Your task to perform on an android device: turn smart compose on in the gmail app Image 0: 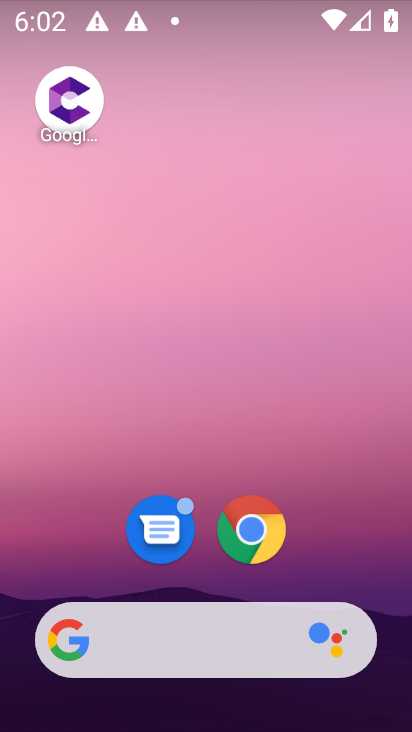
Step 0: click (139, 56)
Your task to perform on an android device: turn smart compose on in the gmail app Image 1: 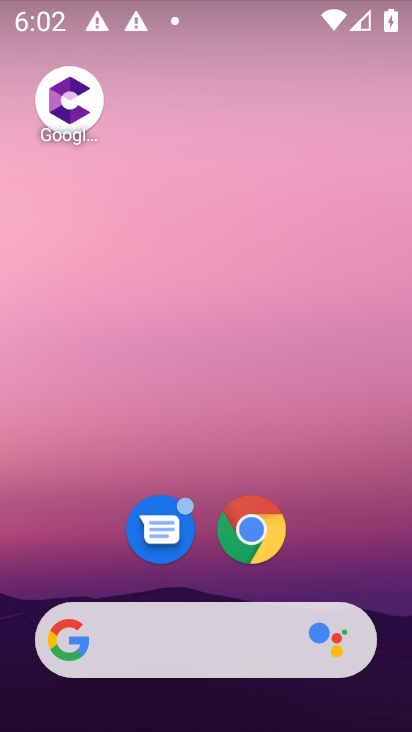
Step 1: click (213, 279)
Your task to perform on an android device: turn smart compose on in the gmail app Image 2: 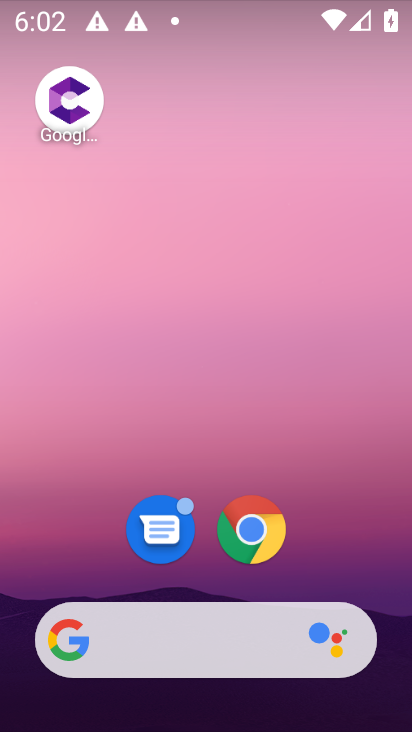
Step 2: click (227, 96)
Your task to perform on an android device: turn smart compose on in the gmail app Image 3: 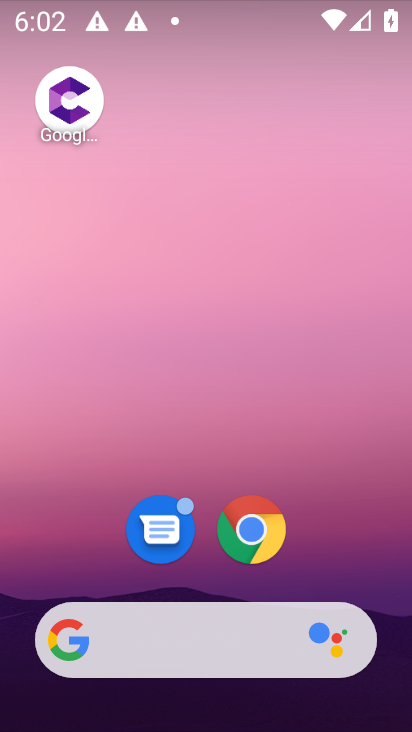
Step 3: drag from (198, 577) to (164, 157)
Your task to perform on an android device: turn smart compose on in the gmail app Image 4: 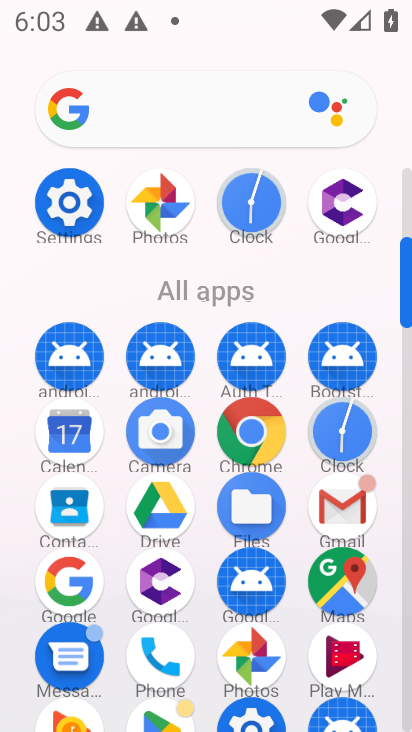
Step 4: click (357, 507)
Your task to perform on an android device: turn smart compose on in the gmail app Image 5: 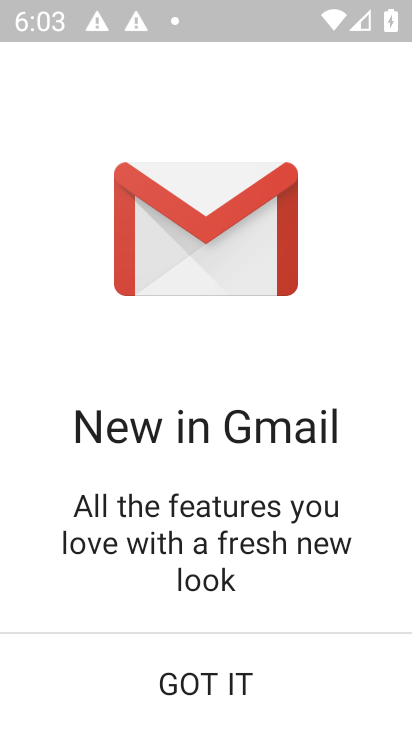
Step 5: click (245, 660)
Your task to perform on an android device: turn smart compose on in the gmail app Image 6: 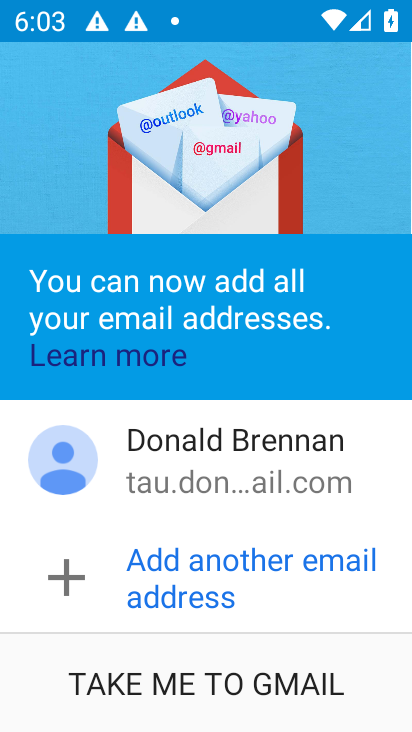
Step 6: click (205, 674)
Your task to perform on an android device: turn smart compose on in the gmail app Image 7: 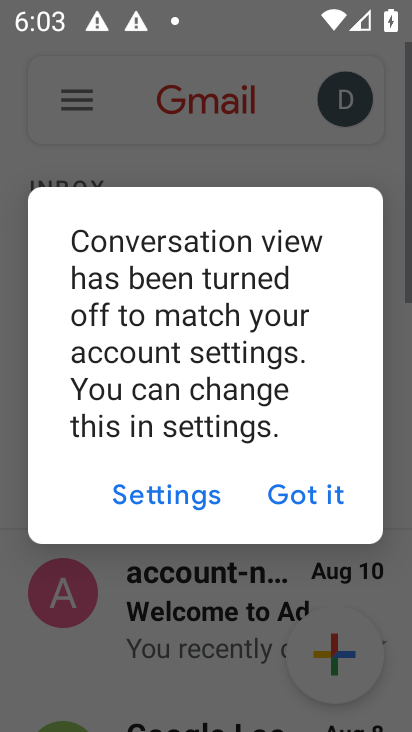
Step 7: click (305, 499)
Your task to perform on an android device: turn smart compose on in the gmail app Image 8: 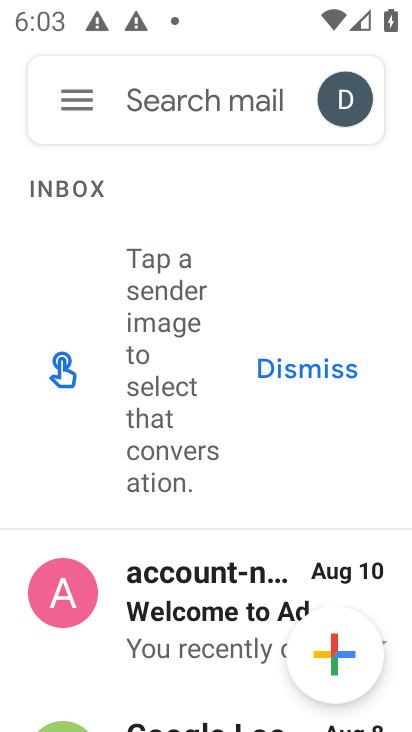
Step 8: click (77, 104)
Your task to perform on an android device: turn smart compose on in the gmail app Image 9: 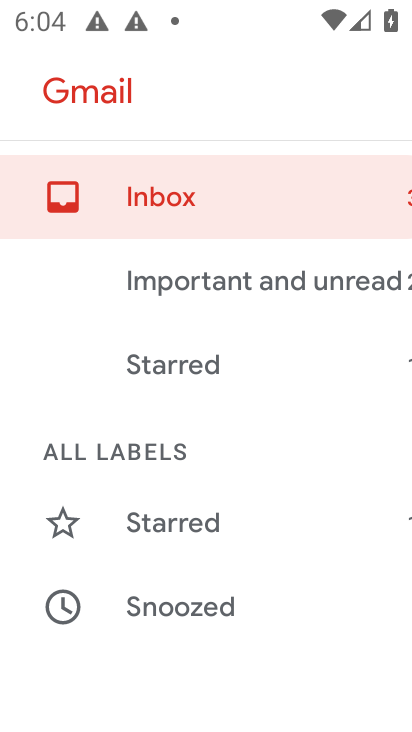
Step 9: drag from (199, 595) to (243, 292)
Your task to perform on an android device: turn smart compose on in the gmail app Image 10: 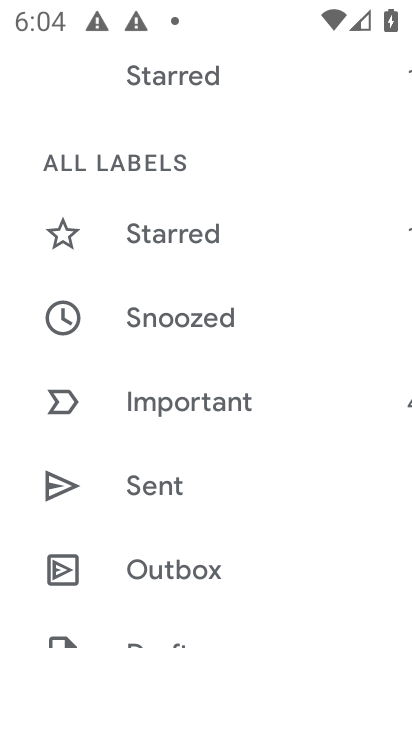
Step 10: drag from (163, 596) to (213, 175)
Your task to perform on an android device: turn smart compose on in the gmail app Image 11: 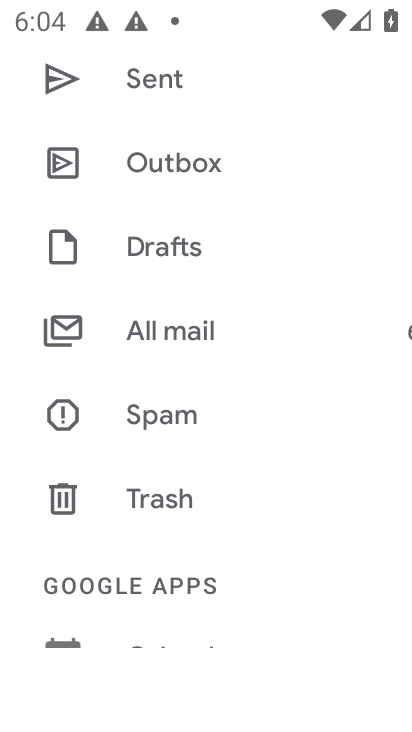
Step 11: drag from (150, 600) to (157, 179)
Your task to perform on an android device: turn smart compose on in the gmail app Image 12: 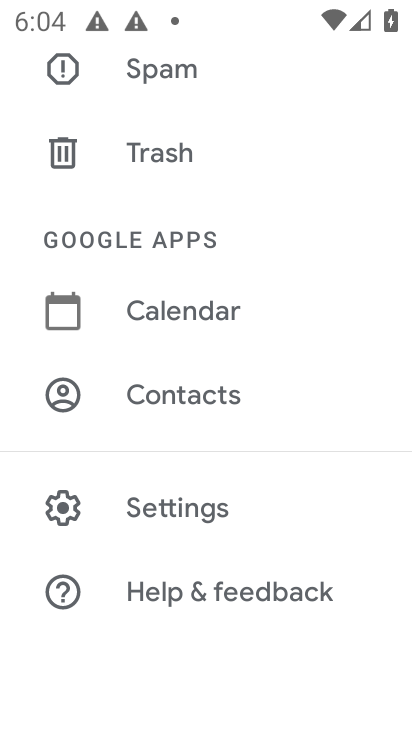
Step 12: click (129, 512)
Your task to perform on an android device: turn smart compose on in the gmail app Image 13: 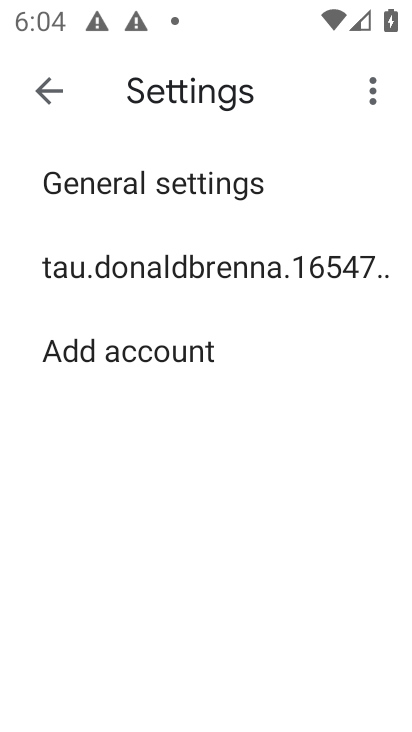
Step 13: click (198, 270)
Your task to perform on an android device: turn smart compose on in the gmail app Image 14: 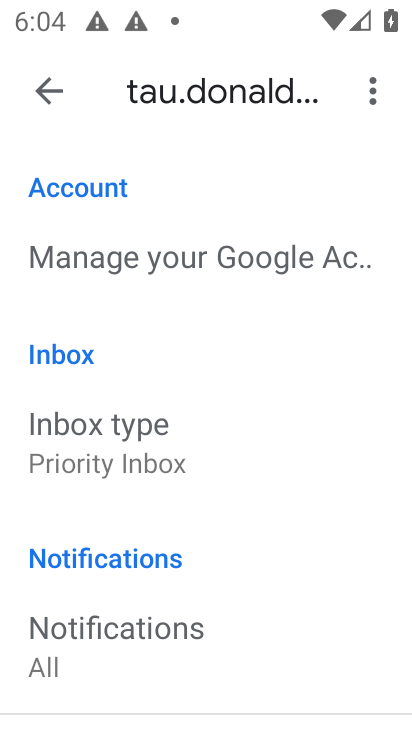
Step 14: task complete